Your task to perform on an android device: empty trash in the gmail app Image 0: 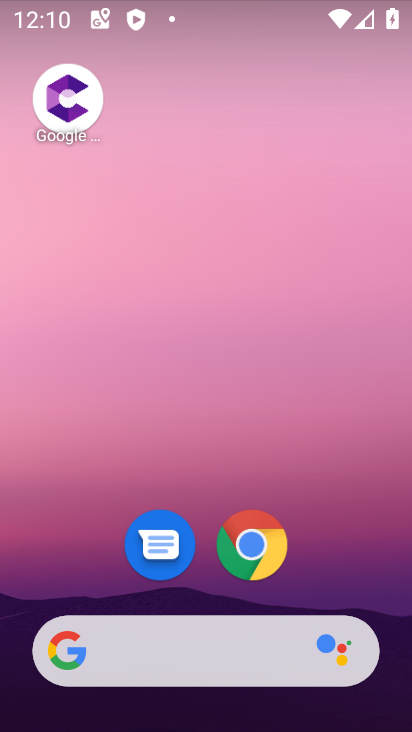
Step 0: task complete